Your task to perform on an android device: open app "Grab" (install if not already installed) and go to login screen Image 0: 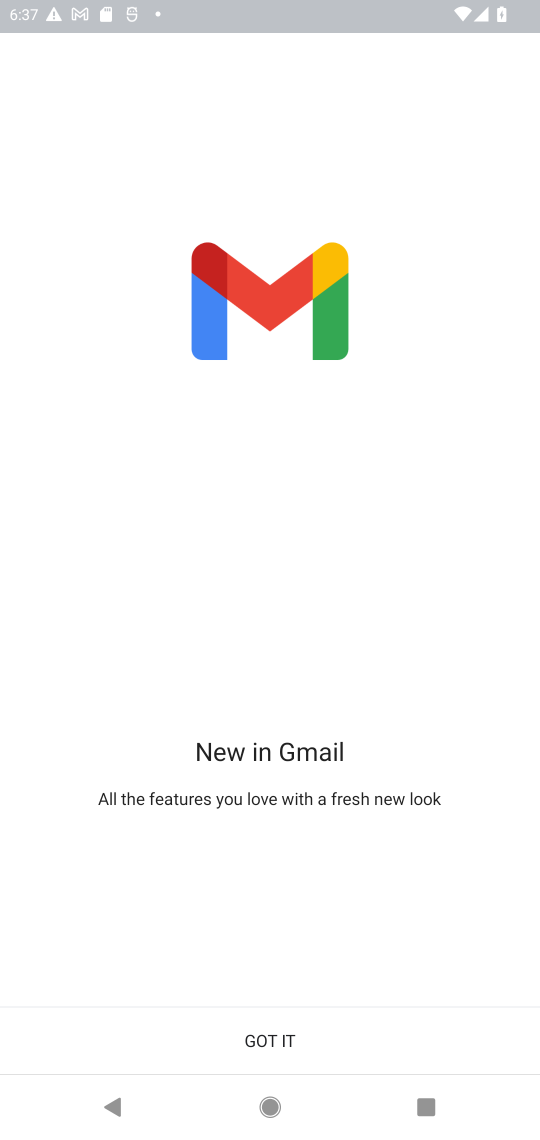
Step 0: press home button
Your task to perform on an android device: open app "Grab" (install if not already installed) and go to login screen Image 1: 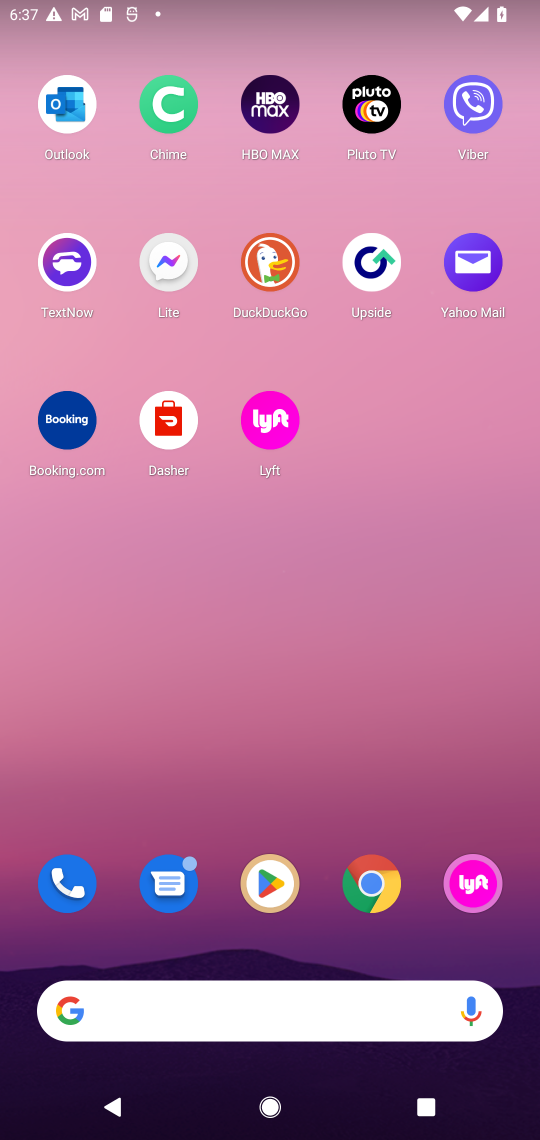
Step 1: click (233, 916)
Your task to perform on an android device: open app "Grab" (install if not already installed) and go to login screen Image 2: 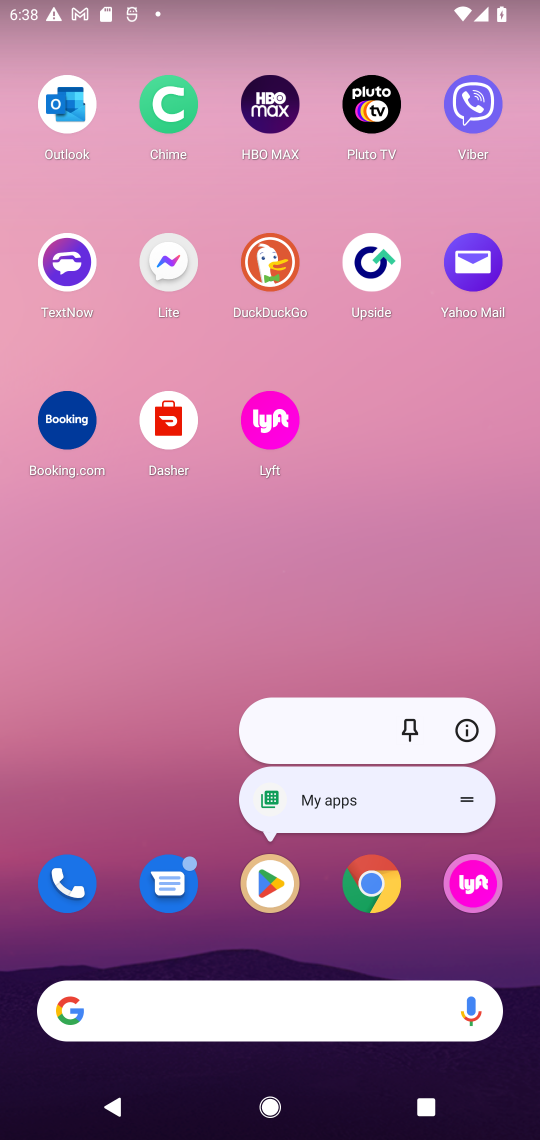
Step 2: click (276, 908)
Your task to perform on an android device: open app "Grab" (install if not already installed) and go to login screen Image 3: 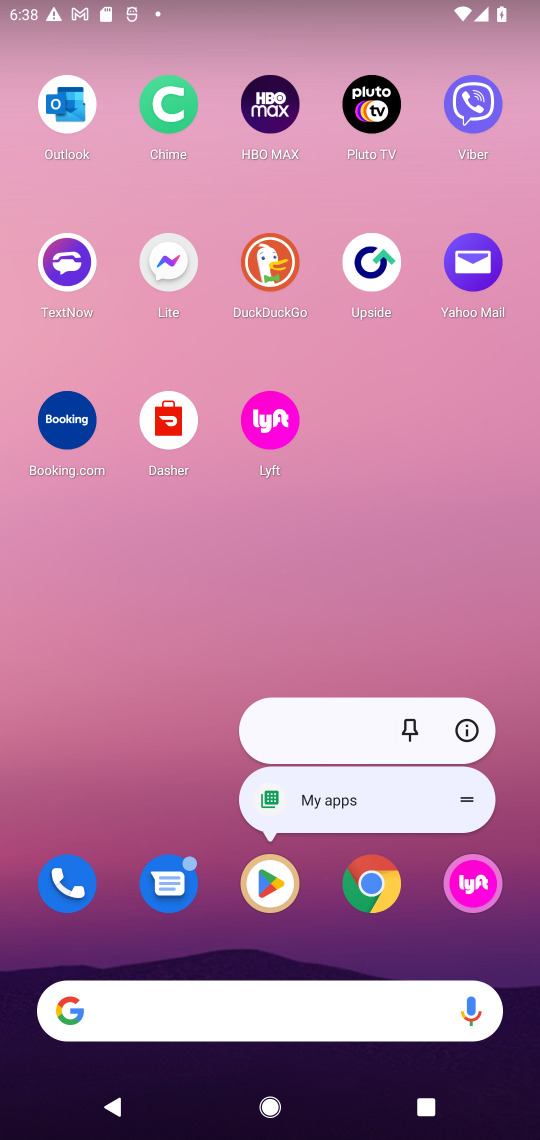
Step 3: click (288, 897)
Your task to perform on an android device: open app "Grab" (install if not already installed) and go to login screen Image 4: 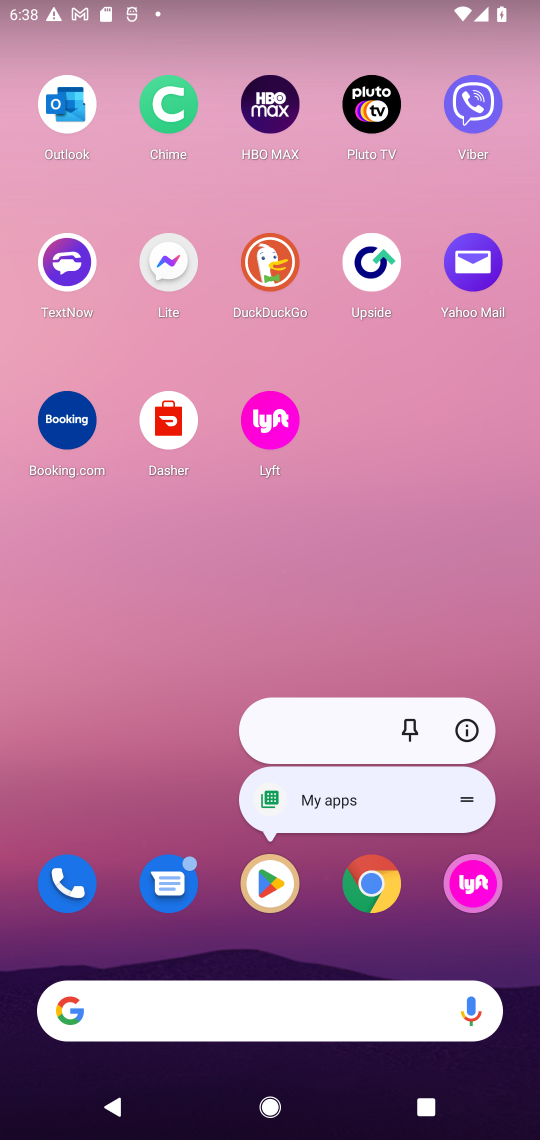
Step 4: click (288, 897)
Your task to perform on an android device: open app "Grab" (install if not already installed) and go to login screen Image 5: 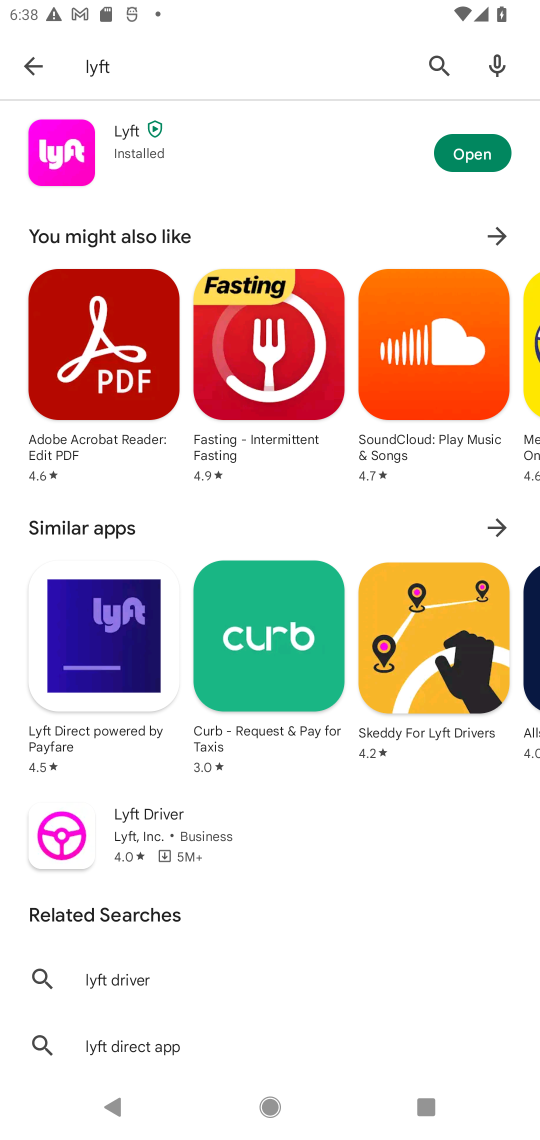
Step 5: click (427, 66)
Your task to perform on an android device: open app "Grab" (install if not already installed) and go to login screen Image 6: 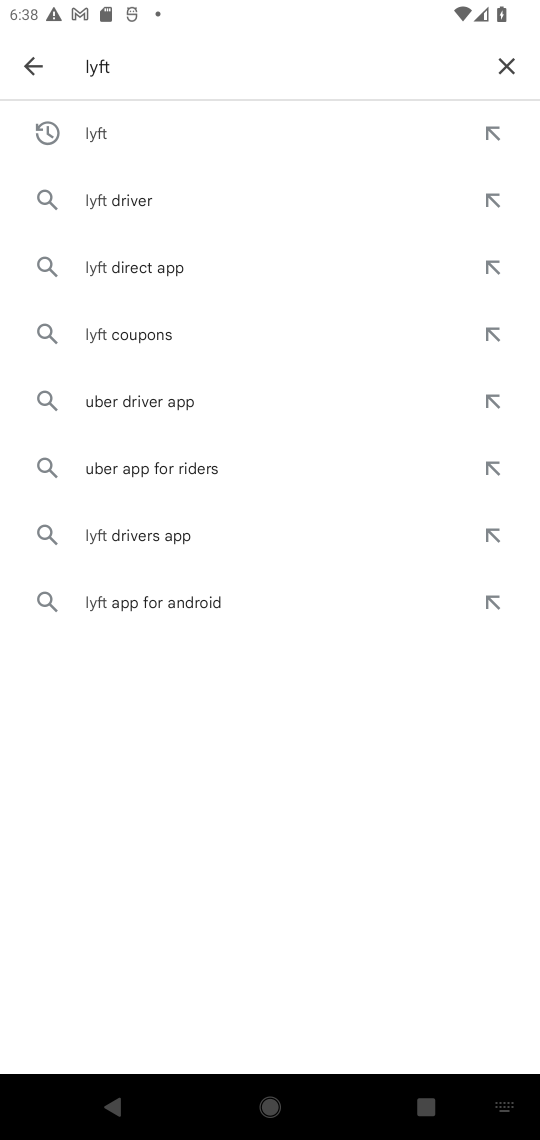
Step 6: click (506, 72)
Your task to perform on an android device: open app "Grab" (install if not already installed) and go to login screen Image 7: 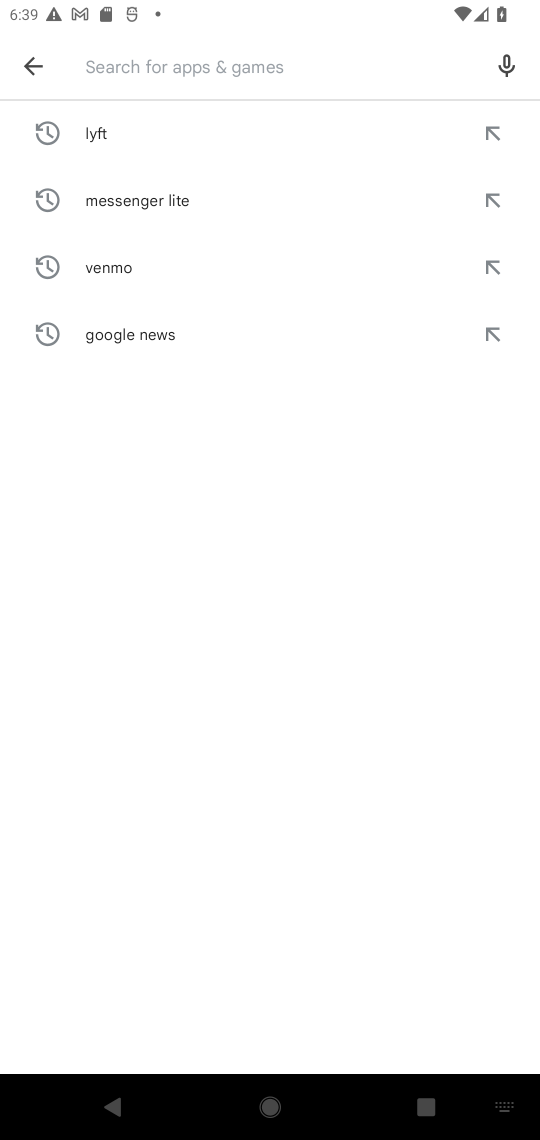
Step 7: click (372, 1079)
Your task to perform on an android device: open app "Grab" (install if not already installed) and go to login screen Image 8: 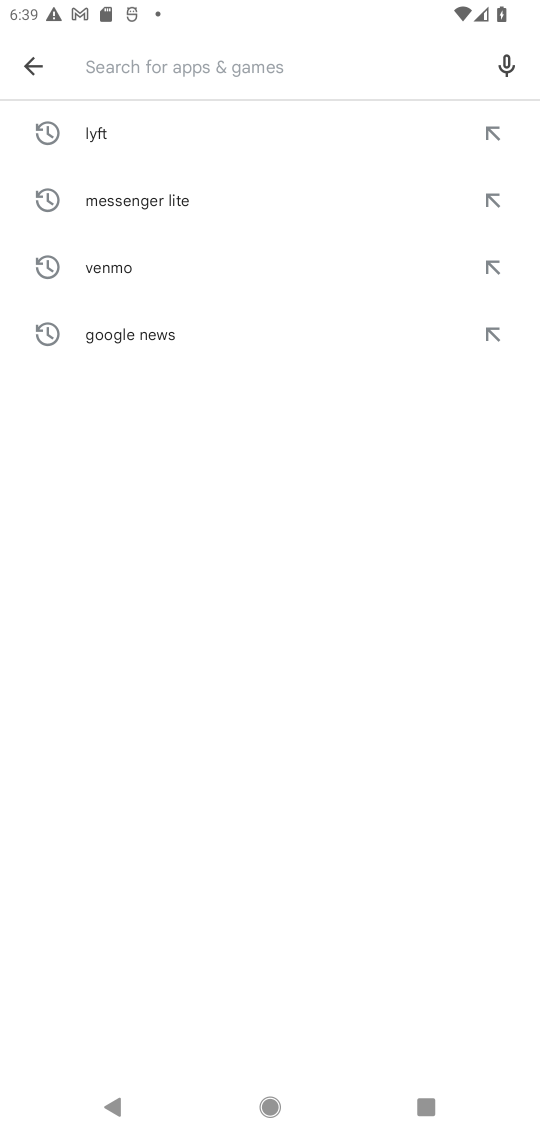
Step 8: type "Grab"
Your task to perform on an android device: open app "Grab" (install if not already installed) and go to login screen Image 9: 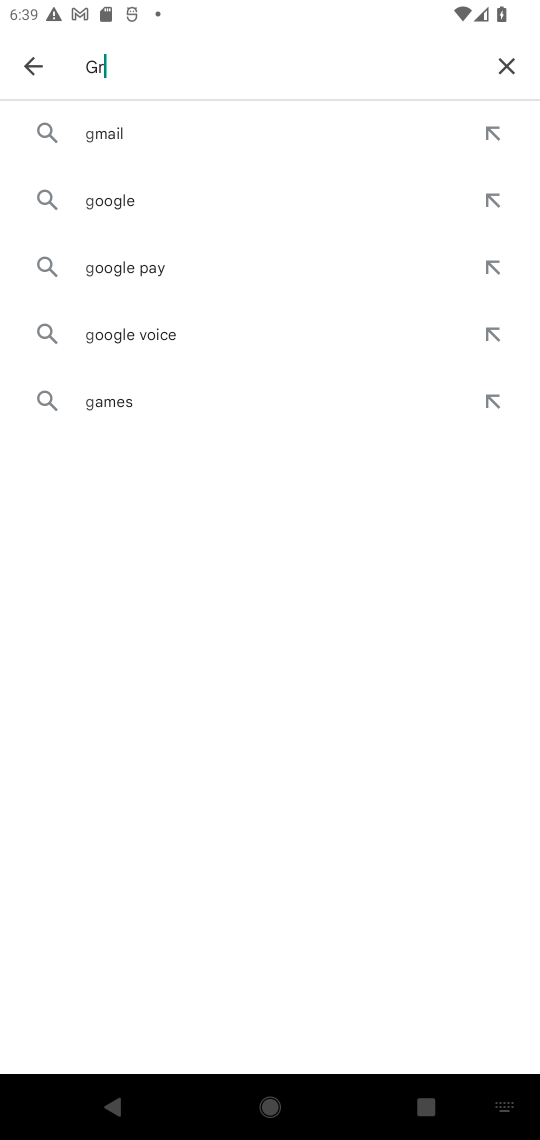
Step 9: type ""
Your task to perform on an android device: open app "Grab" (install if not already installed) and go to login screen Image 10: 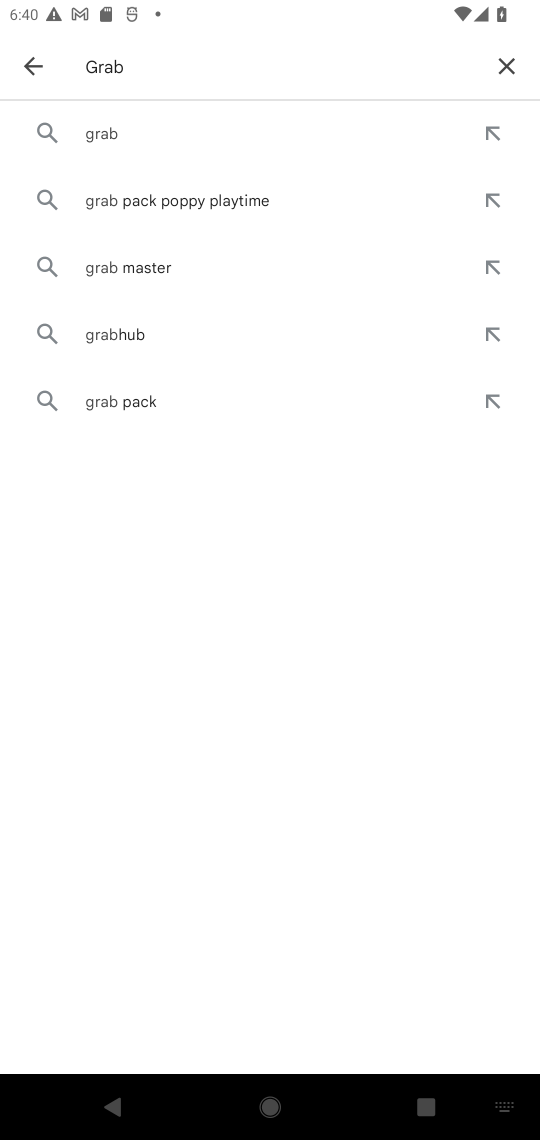
Step 10: click (106, 103)
Your task to perform on an android device: open app "Grab" (install if not already installed) and go to login screen Image 11: 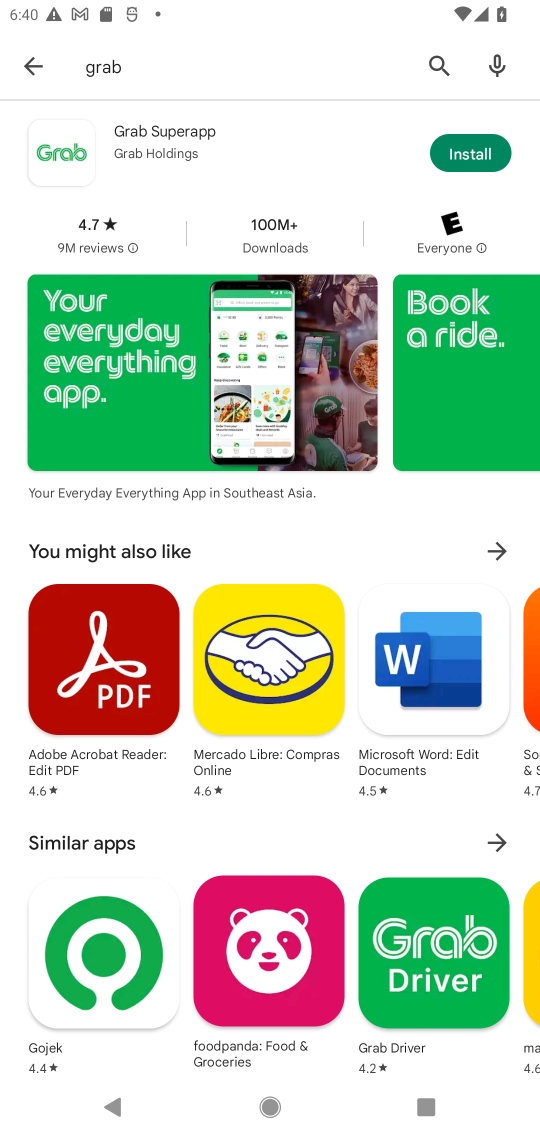
Step 11: click (454, 159)
Your task to perform on an android device: open app "Grab" (install if not already installed) and go to login screen Image 12: 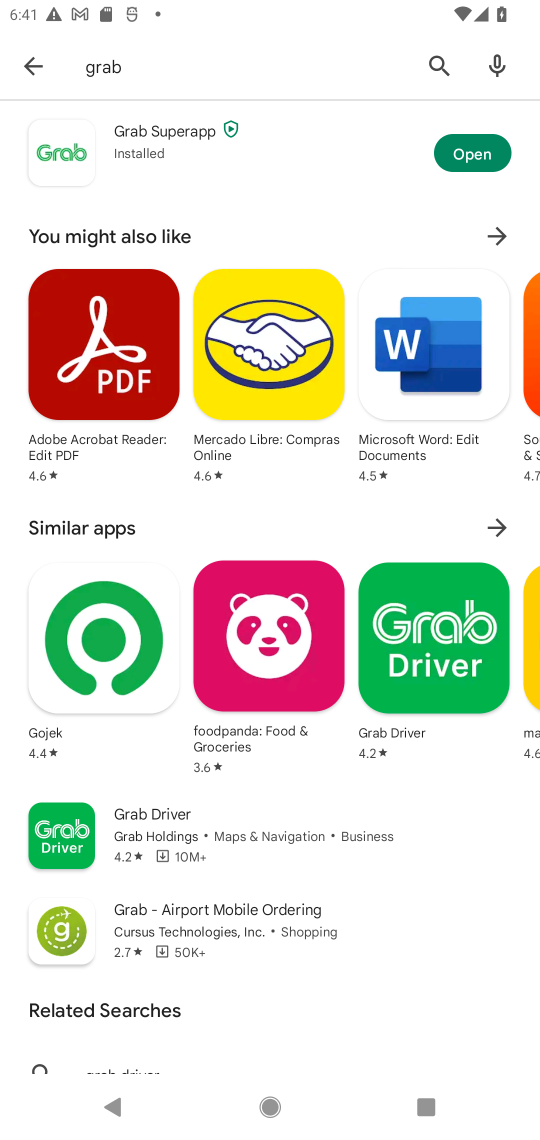
Step 12: click (468, 142)
Your task to perform on an android device: open app "Grab" (install if not already installed) and go to login screen Image 13: 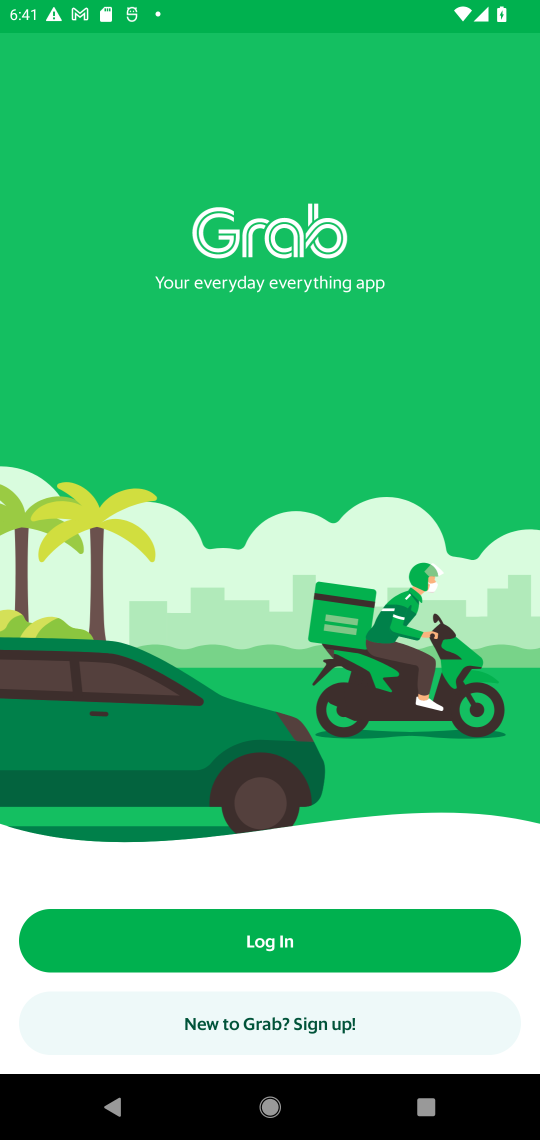
Step 13: task complete